Your task to perform on an android device: manage bookmarks in the chrome app Image 0: 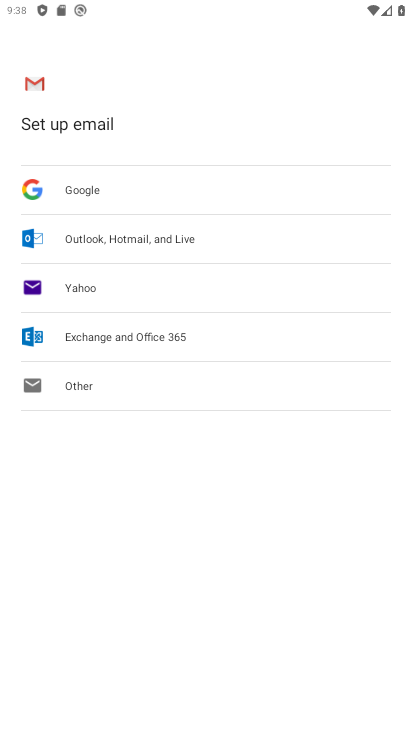
Step 0: press home button
Your task to perform on an android device: manage bookmarks in the chrome app Image 1: 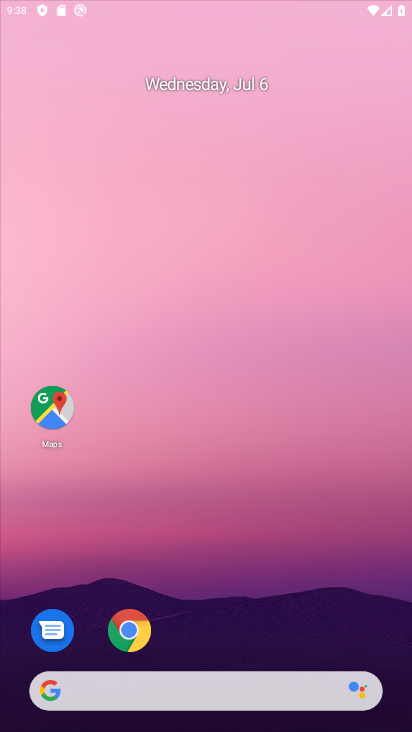
Step 1: drag from (333, 636) to (286, 6)
Your task to perform on an android device: manage bookmarks in the chrome app Image 2: 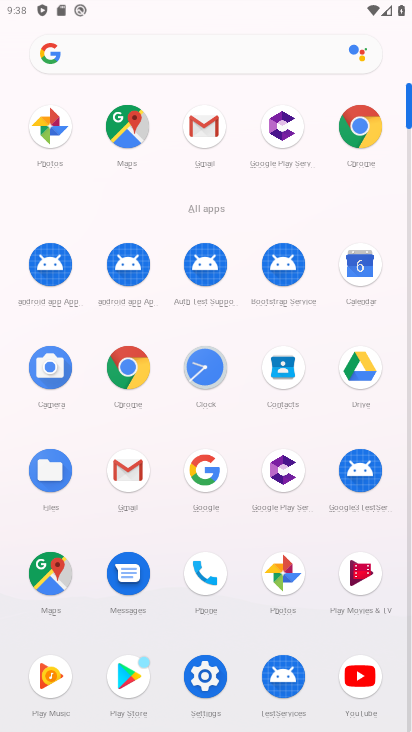
Step 2: click (129, 385)
Your task to perform on an android device: manage bookmarks in the chrome app Image 3: 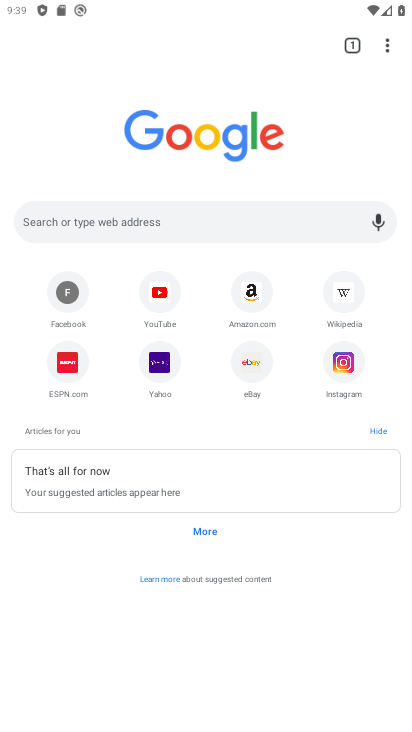
Step 3: drag from (383, 44) to (271, 163)
Your task to perform on an android device: manage bookmarks in the chrome app Image 4: 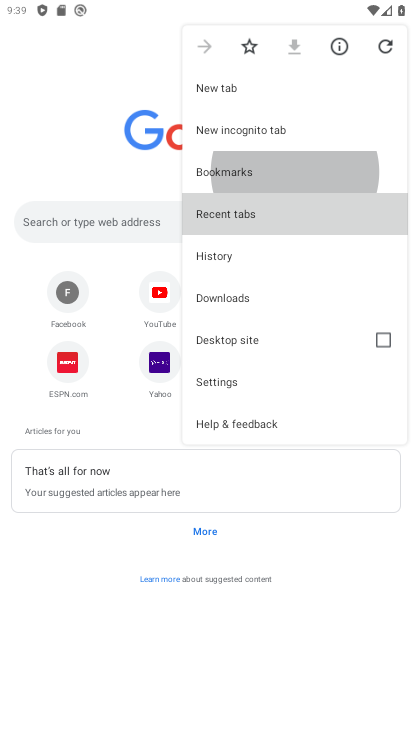
Step 4: click (270, 153)
Your task to perform on an android device: manage bookmarks in the chrome app Image 5: 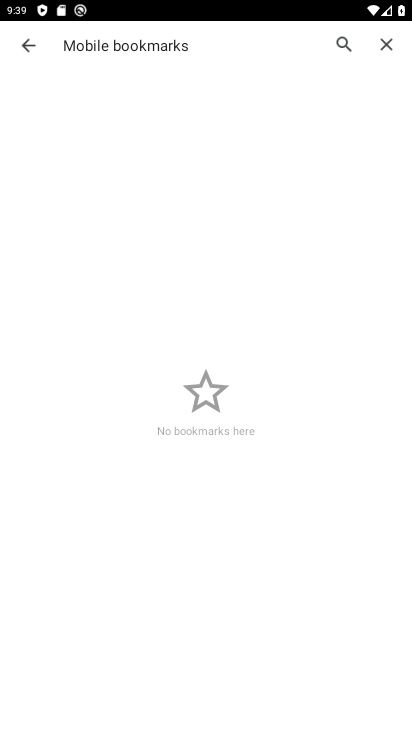
Step 5: task complete